Your task to perform on an android device: read, delete, or share a saved page in the chrome app Image 0: 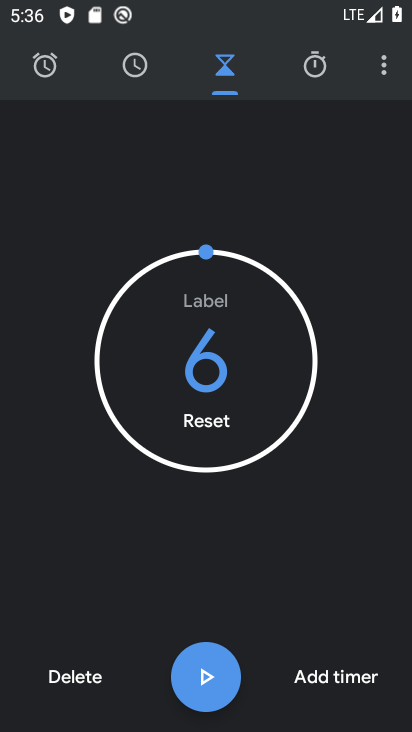
Step 0: press home button
Your task to perform on an android device: read, delete, or share a saved page in the chrome app Image 1: 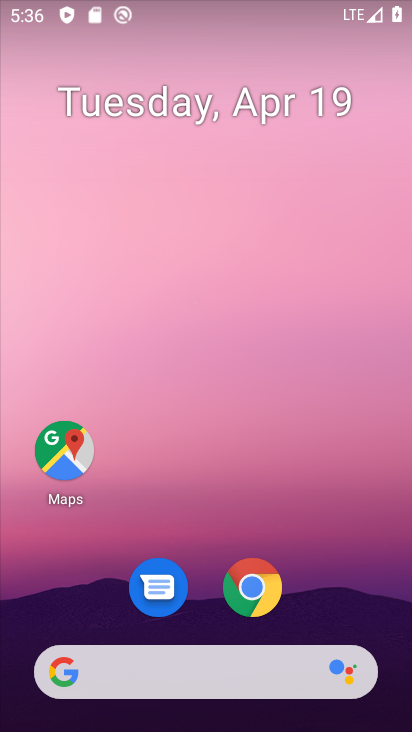
Step 1: click (262, 587)
Your task to perform on an android device: read, delete, or share a saved page in the chrome app Image 2: 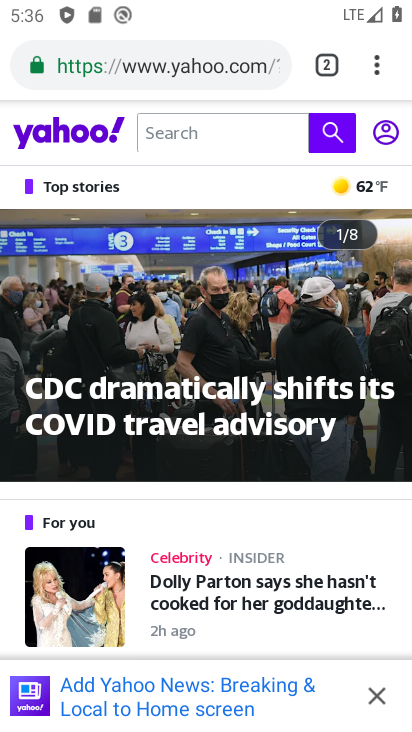
Step 2: click (377, 52)
Your task to perform on an android device: read, delete, or share a saved page in the chrome app Image 3: 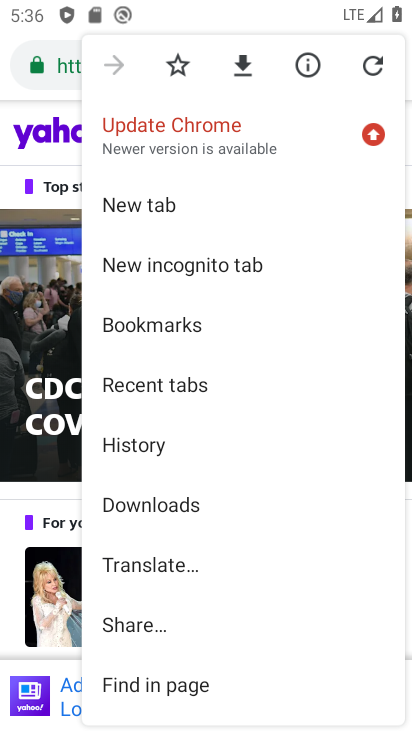
Step 3: click (163, 505)
Your task to perform on an android device: read, delete, or share a saved page in the chrome app Image 4: 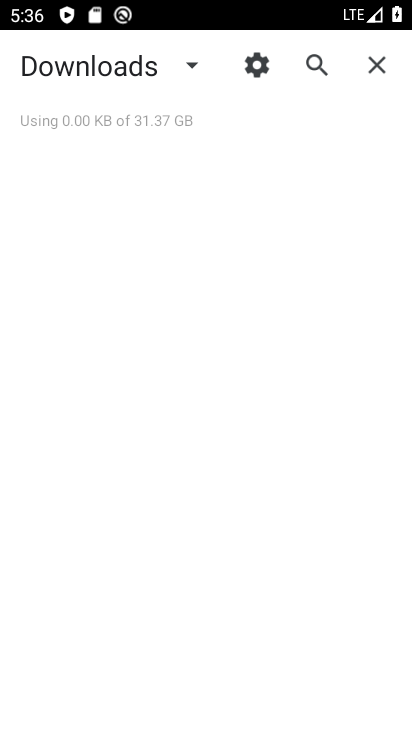
Step 4: task complete